Your task to perform on an android device: open a new tab in the chrome app Image 0: 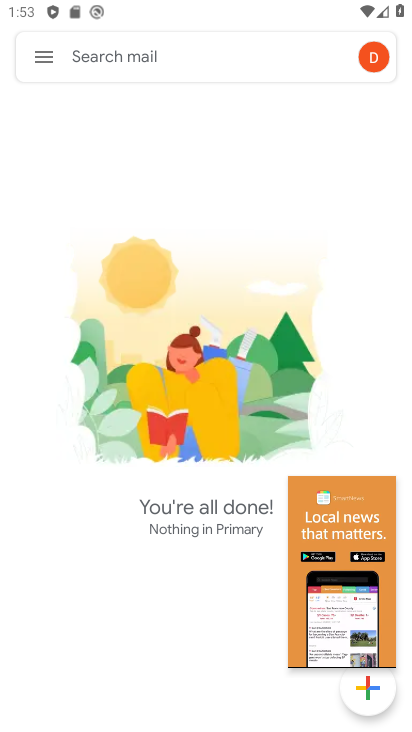
Step 0: click (351, 509)
Your task to perform on an android device: open a new tab in the chrome app Image 1: 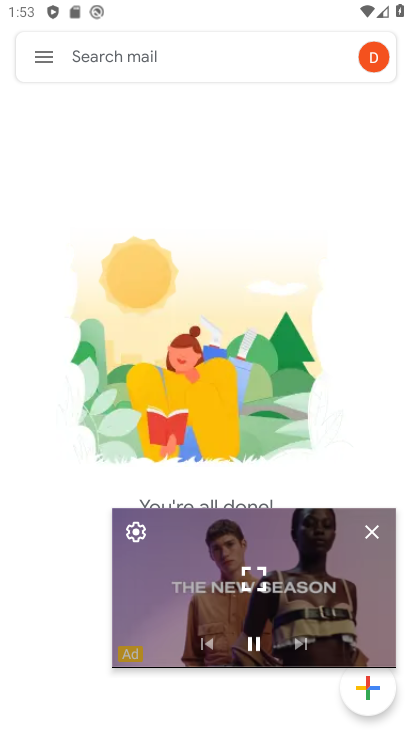
Step 1: click (376, 528)
Your task to perform on an android device: open a new tab in the chrome app Image 2: 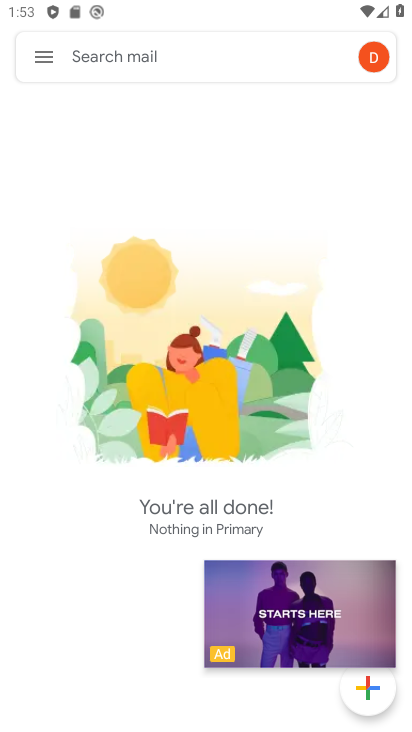
Step 2: press home button
Your task to perform on an android device: open a new tab in the chrome app Image 3: 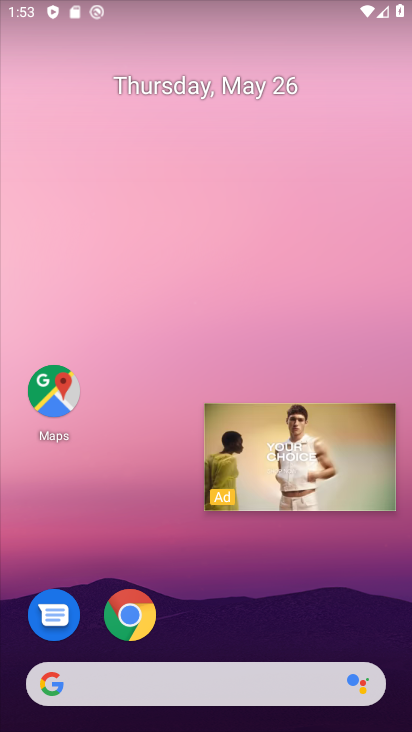
Step 3: drag from (341, 446) to (200, 726)
Your task to perform on an android device: open a new tab in the chrome app Image 4: 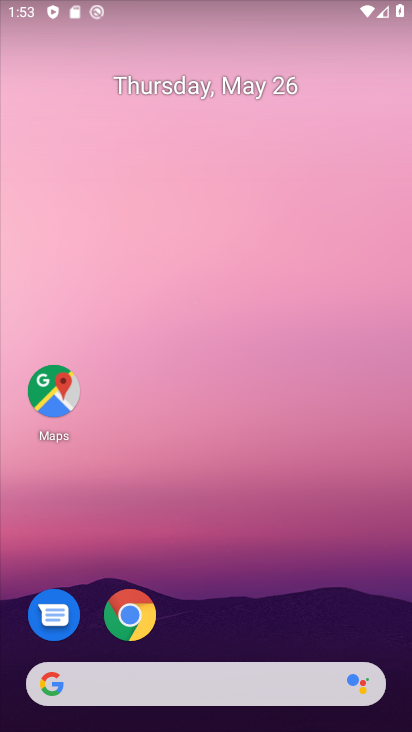
Step 4: click (125, 609)
Your task to perform on an android device: open a new tab in the chrome app Image 5: 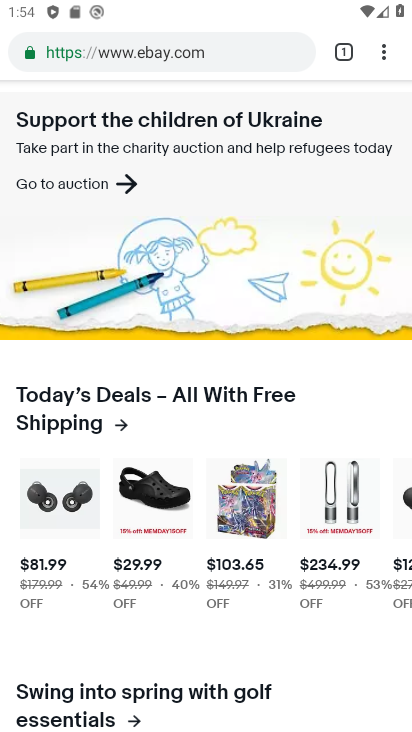
Step 5: click (342, 51)
Your task to perform on an android device: open a new tab in the chrome app Image 6: 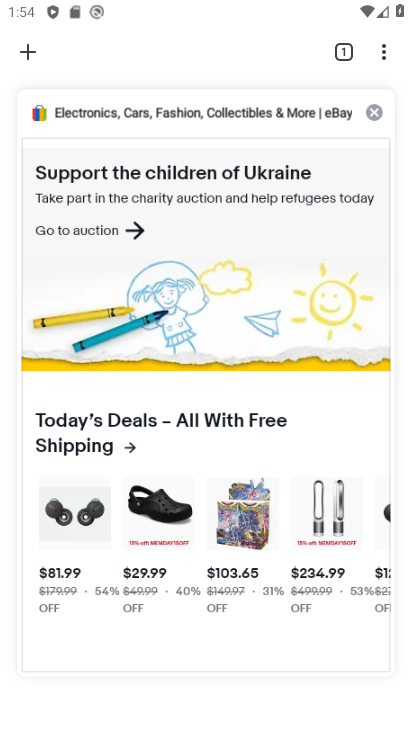
Step 6: click (32, 52)
Your task to perform on an android device: open a new tab in the chrome app Image 7: 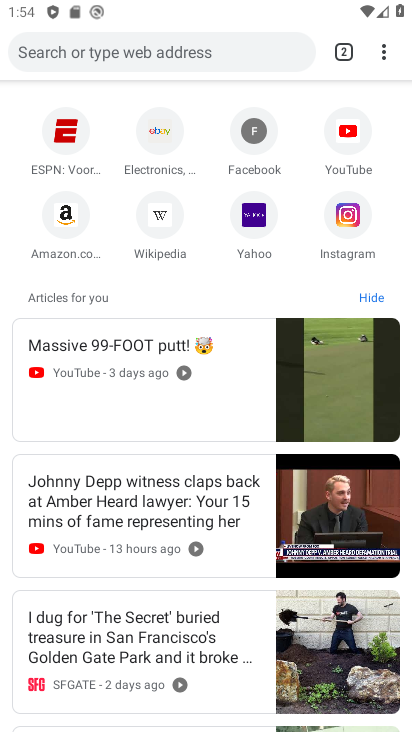
Step 7: task complete